Your task to perform on an android device: stop showing notifications on the lock screen Image 0: 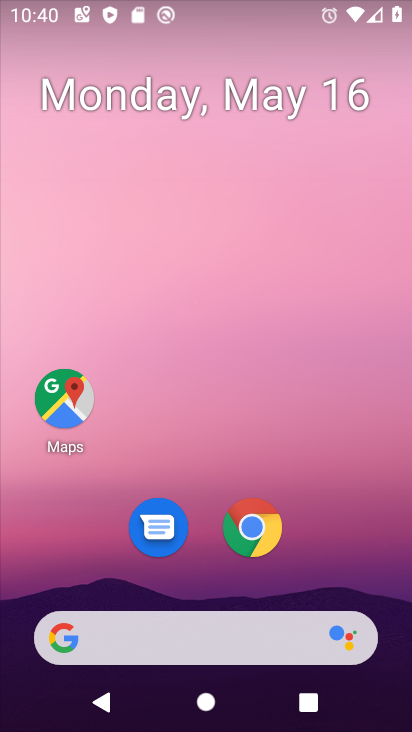
Step 0: drag from (336, 597) to (318, 11)
Your task to perform on an android device: stop showing notifications on the lock screen Image 1: 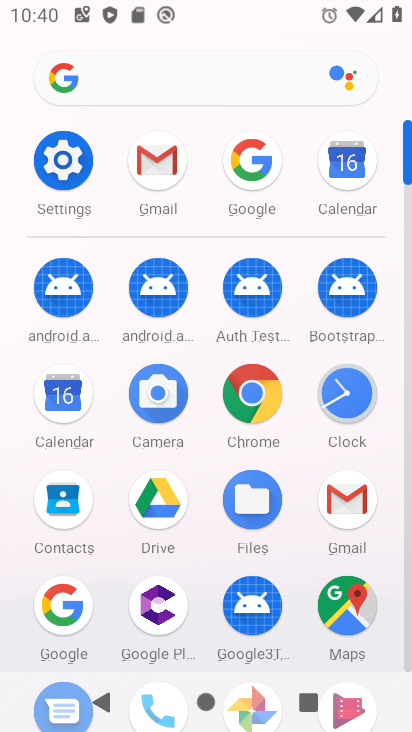
Step 1: click (71, 161)
Your task to perform on an android device: stop showing notifications on the lock screen Image 2: 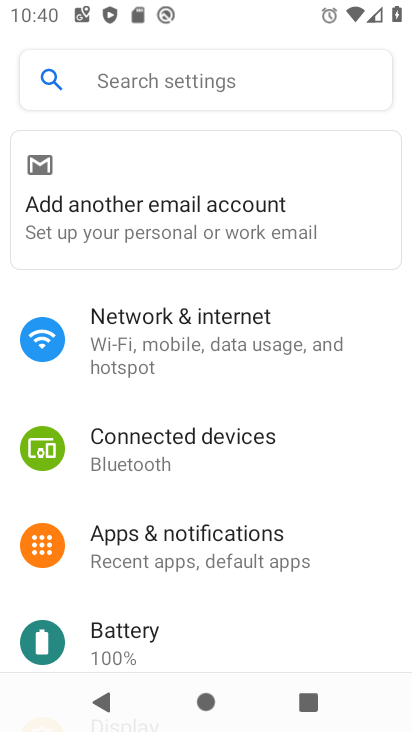
Step 2: click (193, 544)
Your task to perform on an android device: stop showing notifications on the lock screen Image 3: 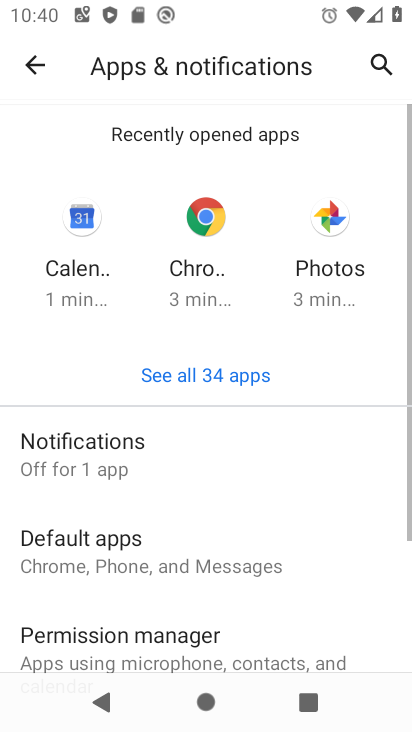
Step 3: click (29, 453)
Your task to perform on an android device: stop showing notifications on the lock screen Image 4: 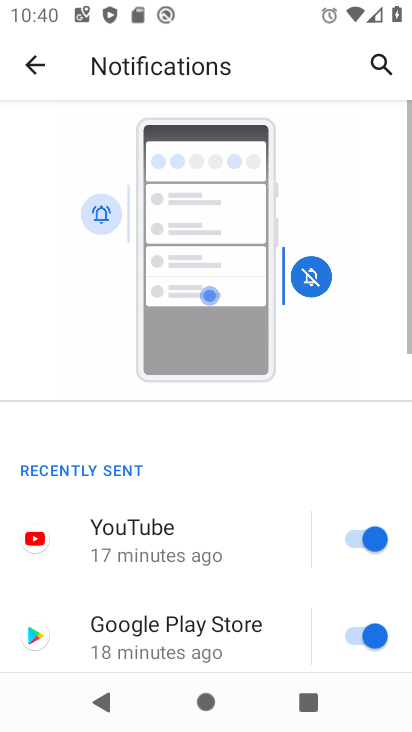
Step 4: drag from (221, 503) to (252, 36)
Your task to perform on an android device: stop showing notifications on the lock screen Image 5: 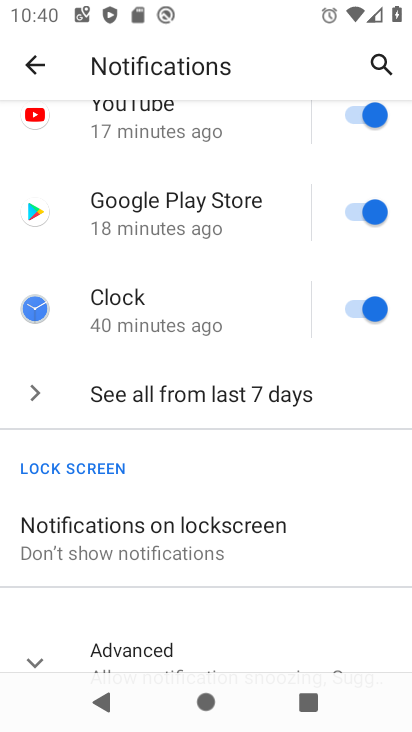
Step 5: click (120, 538)
Your task to perform on an android device: stop showing notifications on the lock screen Image 6: 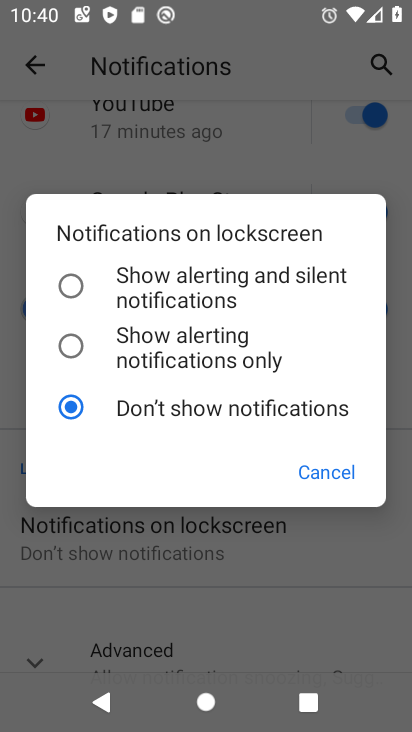
Step 6: task complete